Your task to perform on an android device: Open Google Chrome and open the bookmarks view Image 0: 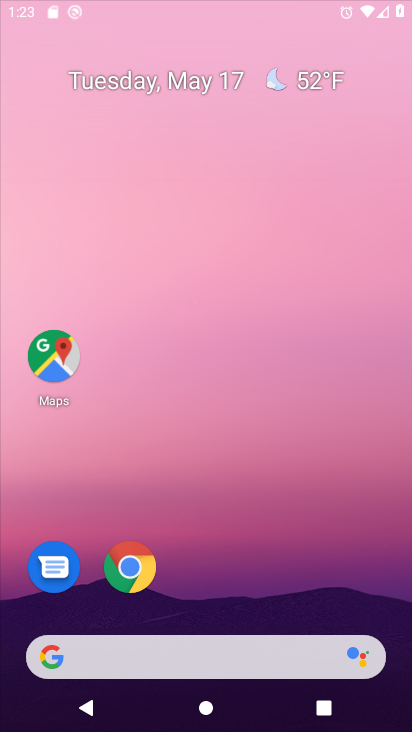
Step 0: click (141, 596)
Your task to perform on an android device: Open Google Chrome and open the bookmarks view Image 1: 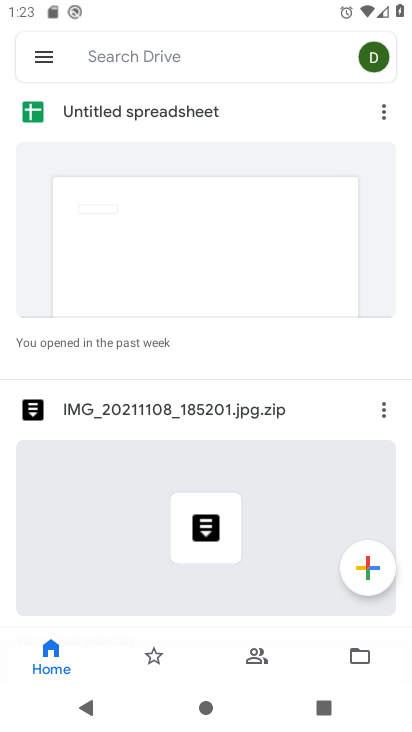
Step 1: press home button
Your task to perform on an android device: Open Google Chrome and open the bookmarks view Image 2: 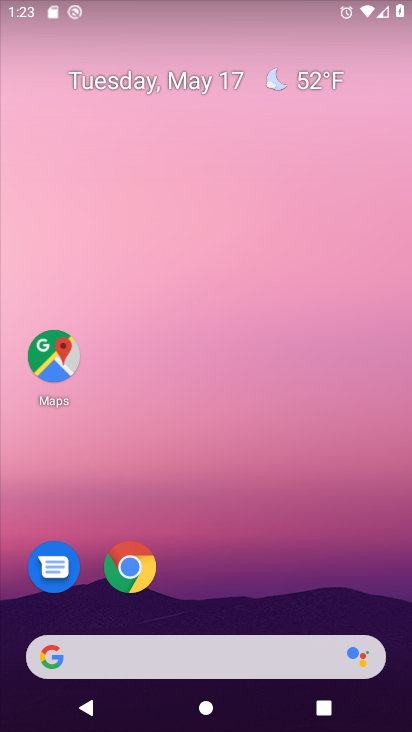
Step 2: click (139, 552)
Your task to perform on an android device: Open Google Chrome and open the bookmarks view Image 3: 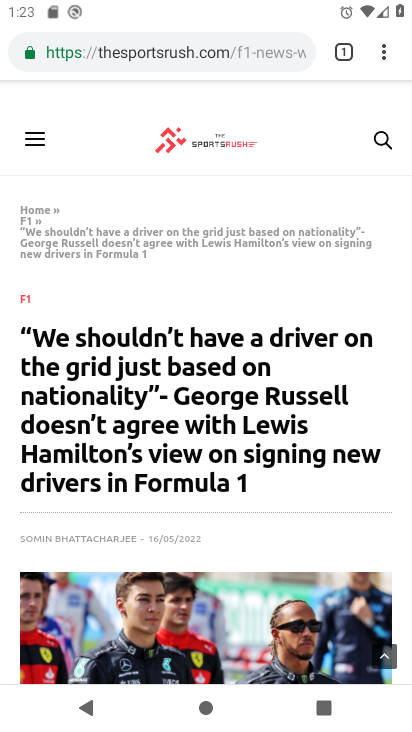
Step 3: click (386, 61)
Your task to perform on an android device: Open Google Chrome and open the bookmarks view Image 4: 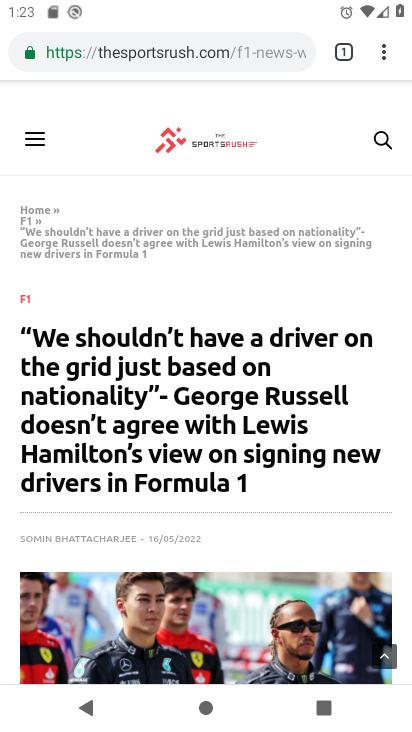
Step 4: click (381, 52)
Your task to perform on an android device: Open Google Chrome and open the bookmarks view Image 5: 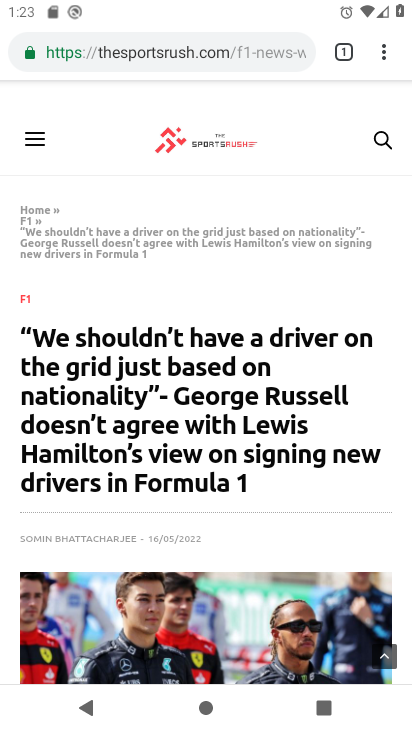
Step 5: click (387, 53)
Your task to perform on an android device: Open Google Chrome and open the bookmarks view Image 6: 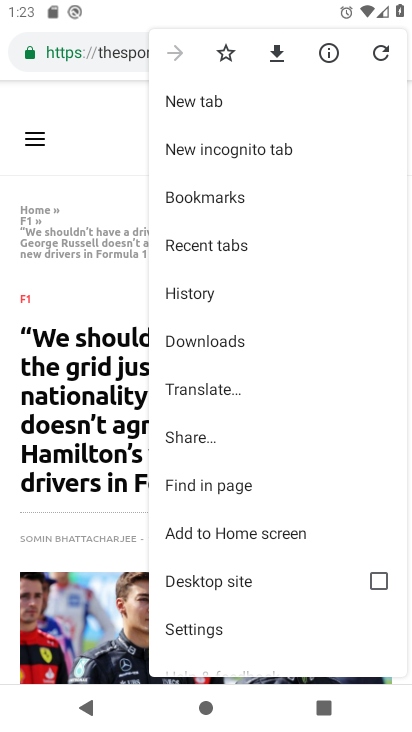
Step 6: click (212, 196)
Your task to perform on an android device: Open Google Chrome and open the bookmarks view Image 7: 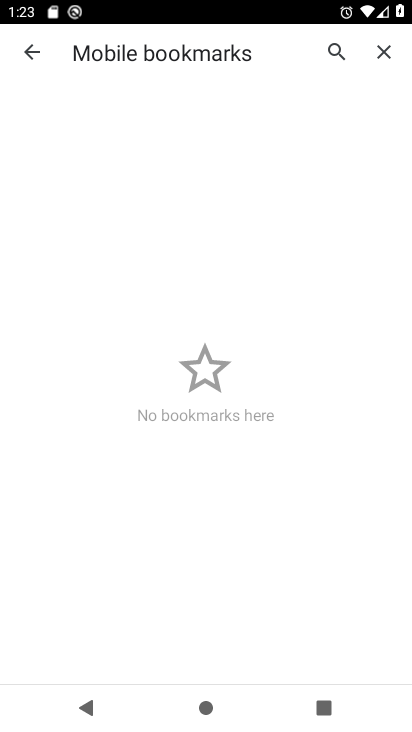
Step 7: task complete